Your task to perform on an android device: Open the phone app and click the voicemail tab. Image 0: 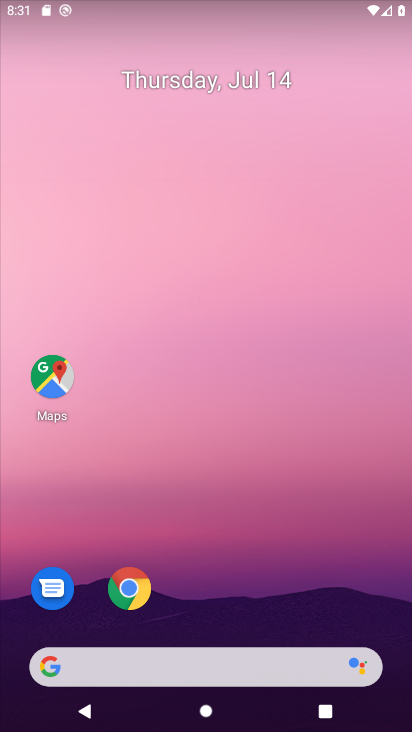
Step 0: drag from (356, 608) to (389, 91)
Your task to perform on an android device: Open the phone app and click the voicemail tab. Image 1: 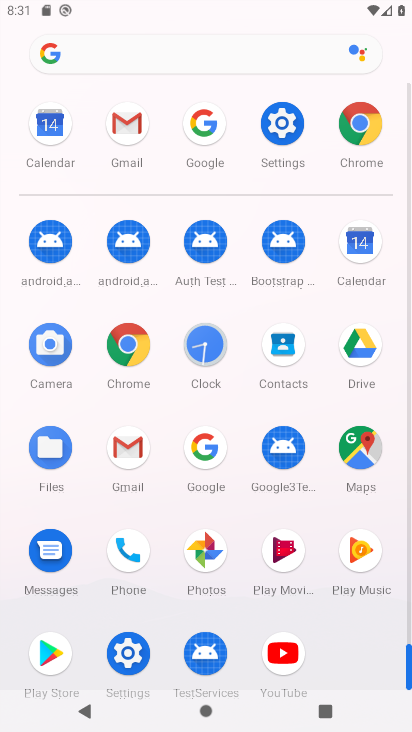
Step 1: click (125, 547)
Your task to perform on an android device: Open the phone app and click the voicemail tab. Image 2: 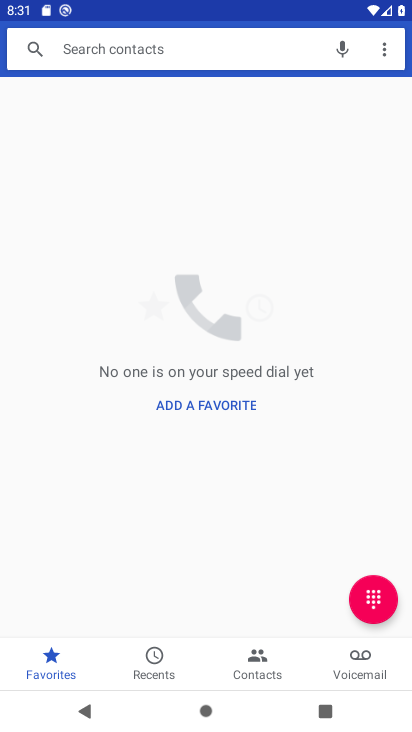
Step 2: click (374, 661)
Your task to perform on an android device: Open the phone app and click the voicemail tab. Image 3: 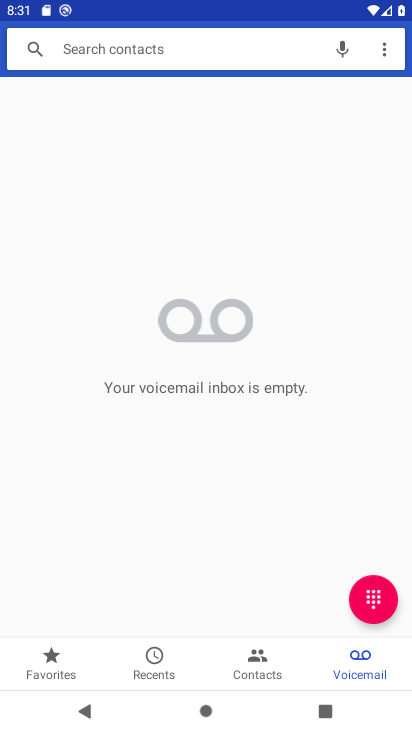
Step 3: task complete